Your task to perform on an android device: What is the news today? Image 0: 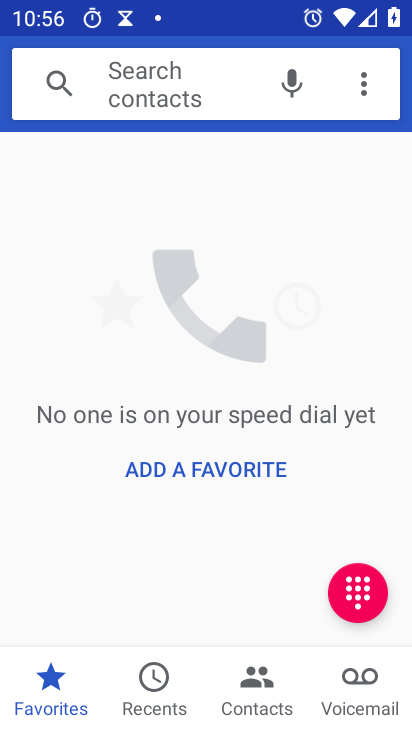
Step 0: drag from (269, 613) to (249, 340)
Your task to perform on an android device: What is the news today? Image 1: 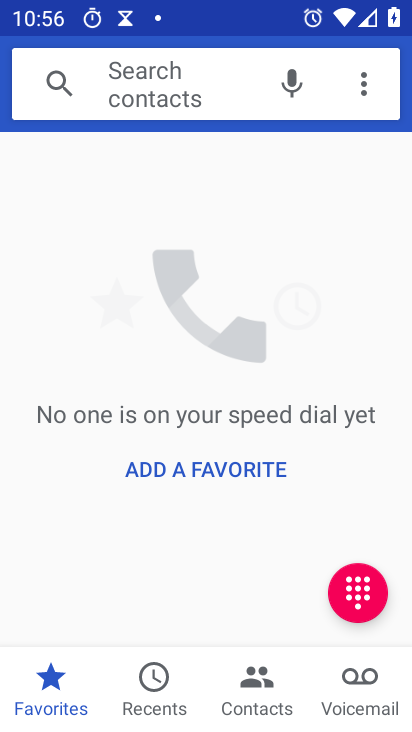
Step 1: task complete